Your task to perform on an android device: Open maps Image 0: 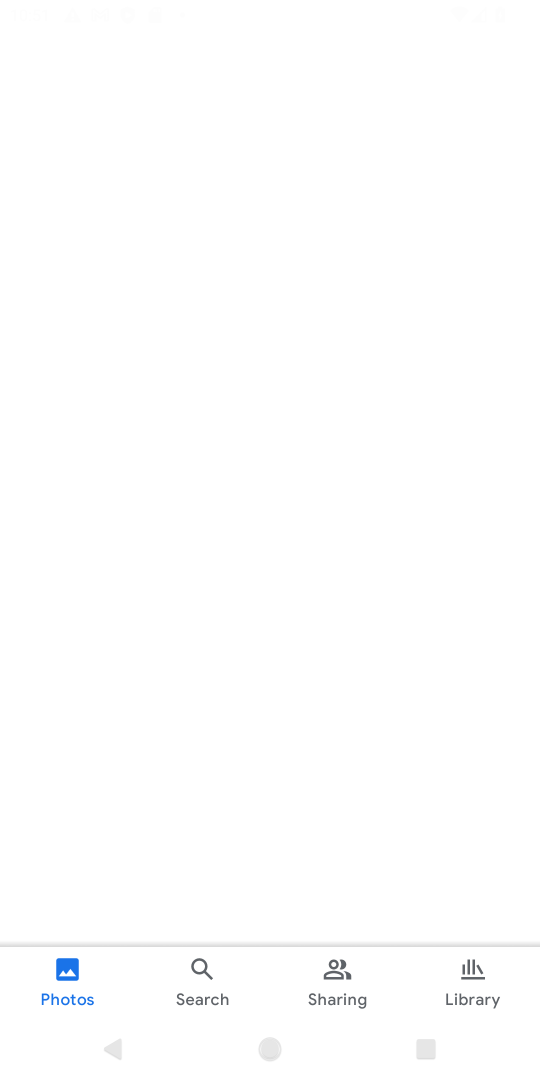
Step 0: press home button
Your task to perform on an android device: Open maps Image 1: 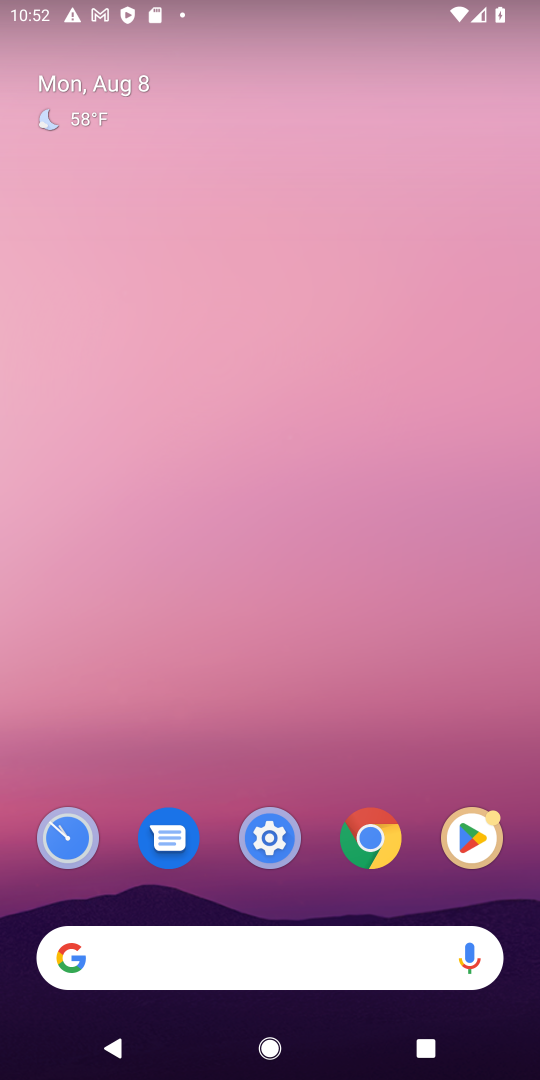
Step 1: drag from (305, 887) to (305, 3)
Your task to perform on an android device: Open maps Image 2: 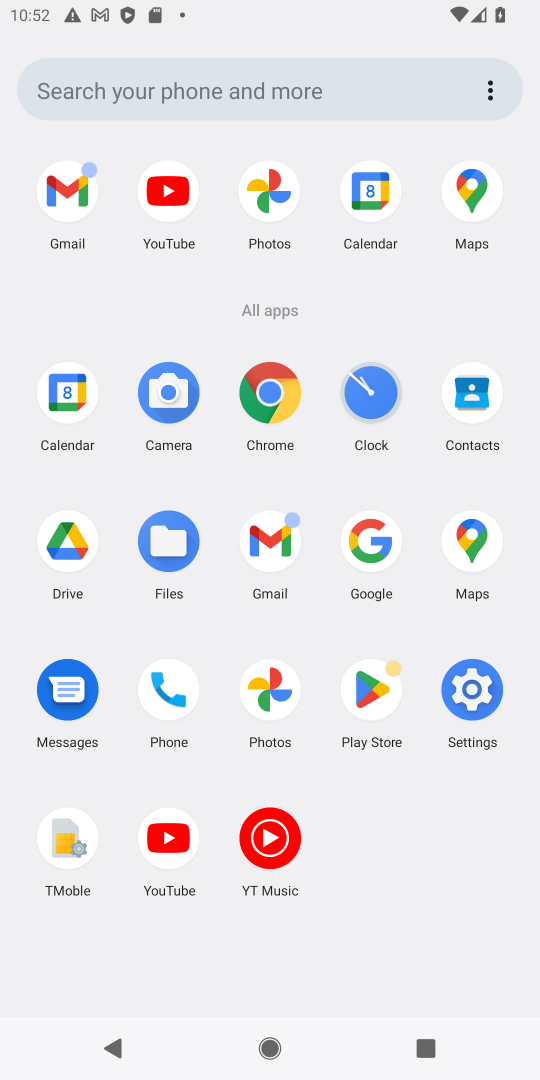
Step 2: click (464, 564)
Your task to perform on an android device: Open maps Image 3: 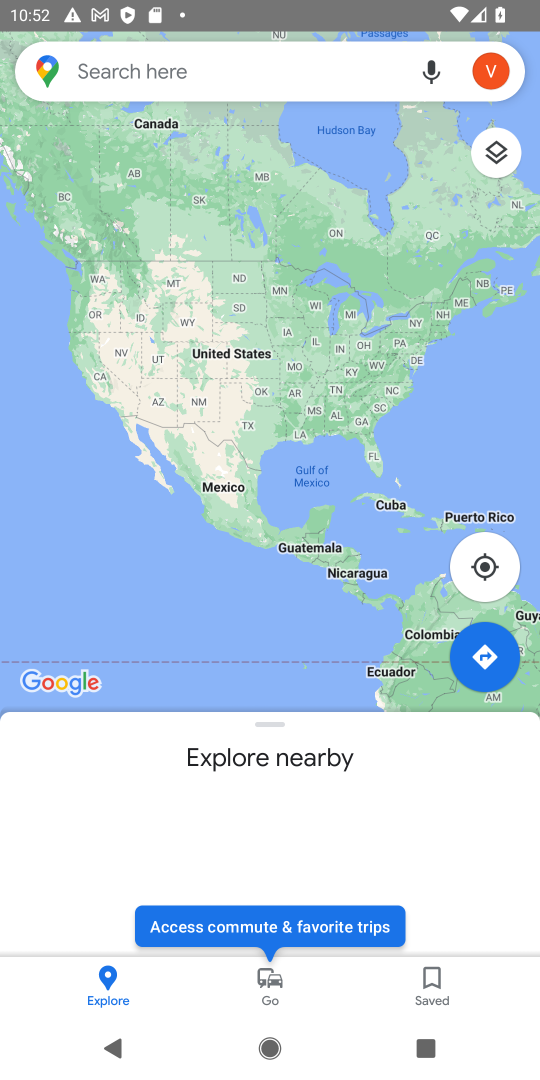
Step 3: task complete